Your task to perform on an android device: change the clock style Image 0: 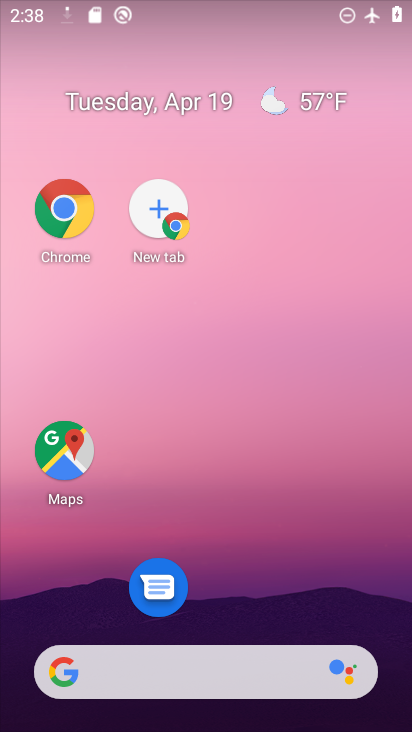
Step 0: drag from (215, 210) to (192, 83)
Your task to perform on an android device: change the clock style Image 1: 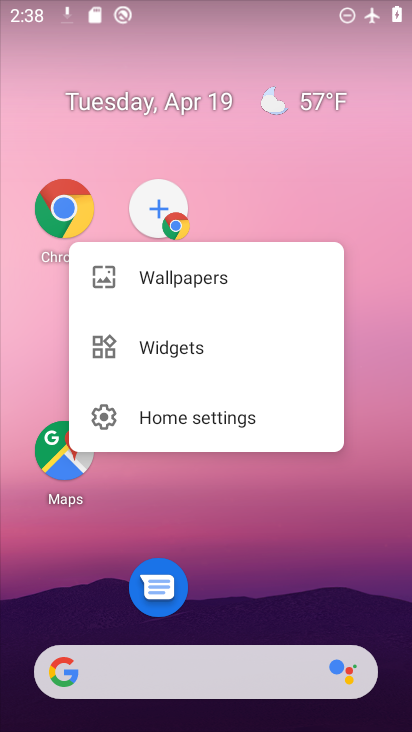
Step 1: drag from (284, 714) to (197, 154)
Your task to perform on an android device: change the clock style Image 2: 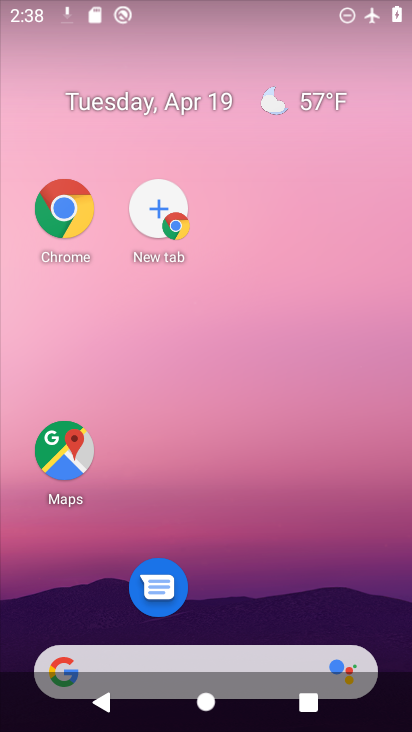
Step 2: drag from (301, 599) to (187, 238)
Your task to perform on an android device: change the clock style Image 3: 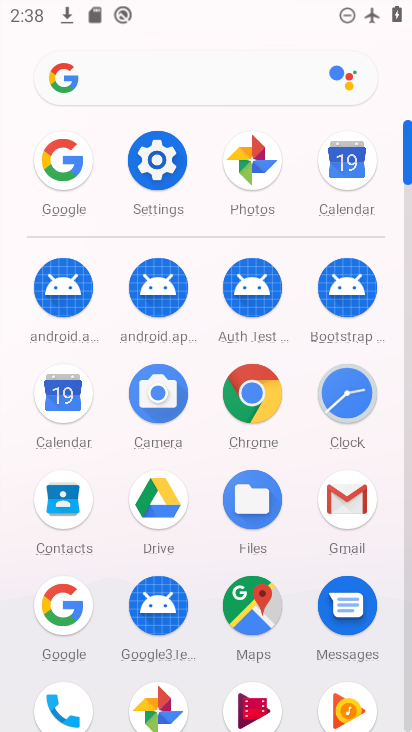
Step 3: click (336, 378)
Your task to perform on an android device: change the clock style Image 4: 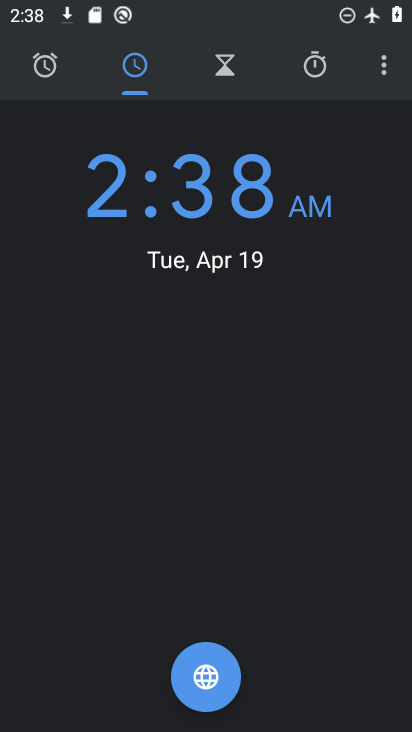
Step 4: click (376, 66)
Your task to perform on an android device: change the clock style Image 5: 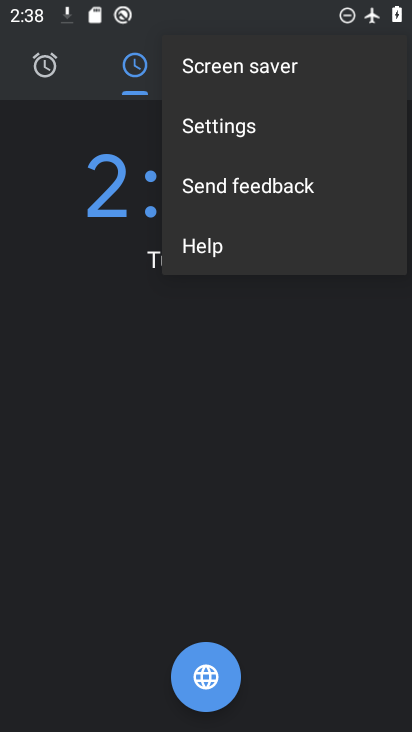
Step 5: click (218, 126)
Your task to perform on an android device: change the clock style Image 6: 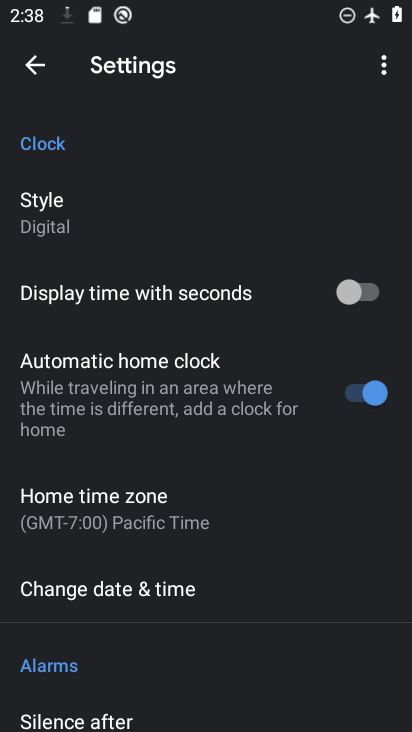
Step 6: click (107, 212)
Your task to perform on an android device: change the clock style Image 7: 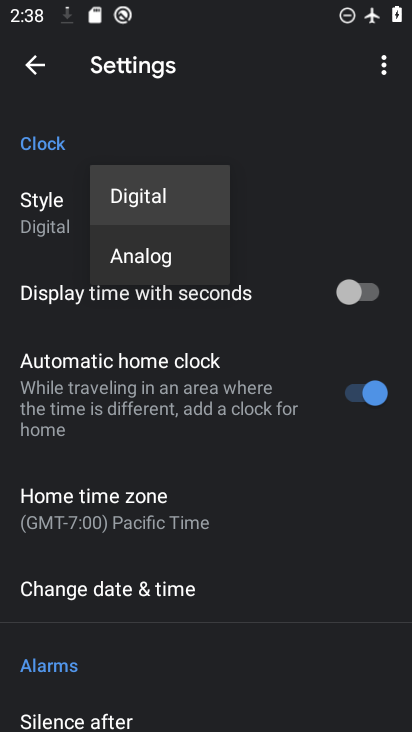
Step 7: click (144, 264)
Your task to perform on an android device: change the clock style Image 8: 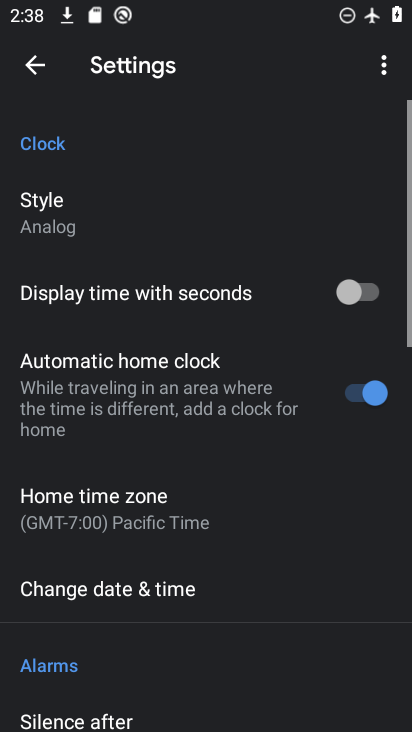
Step 8: task complete